Your task to perform on an android device: Open Wikipedia Image 0: 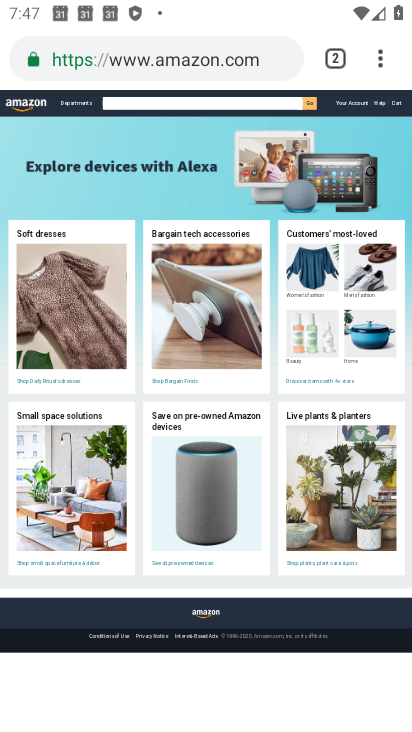
Step 0: press home button
Your task to perform on an android device: Open Wikipedia Image 1: 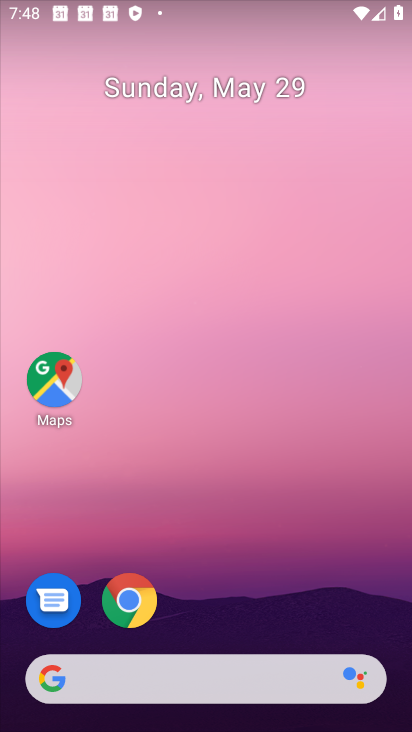
Step 1: drag from (314, 586) to (303, 75)
Your task to perform on an android device: Open Wikipedia Image 2: 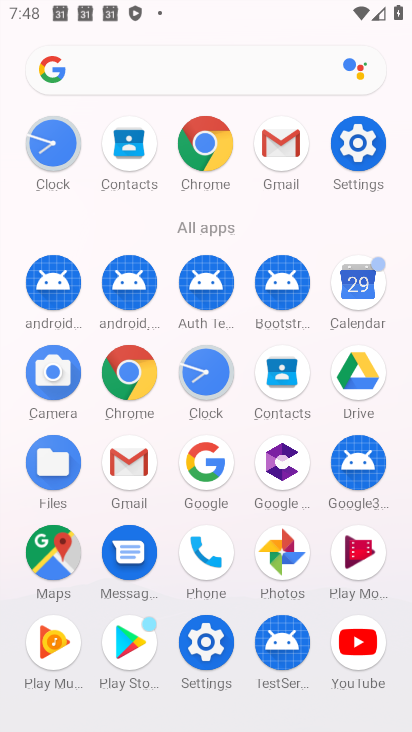
Step 2: click (148, 384)
Your task to perform on an android device: Open Wikipedia Image 3: 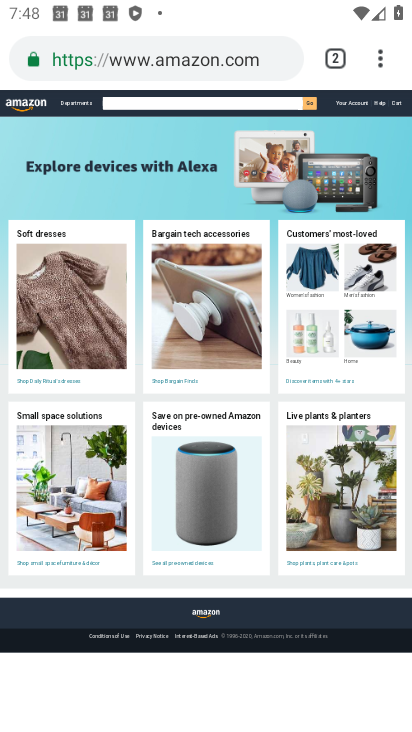
Step 3: click (342, 56)
Your task to perform on an android device: Open Wikipedia Image 4: 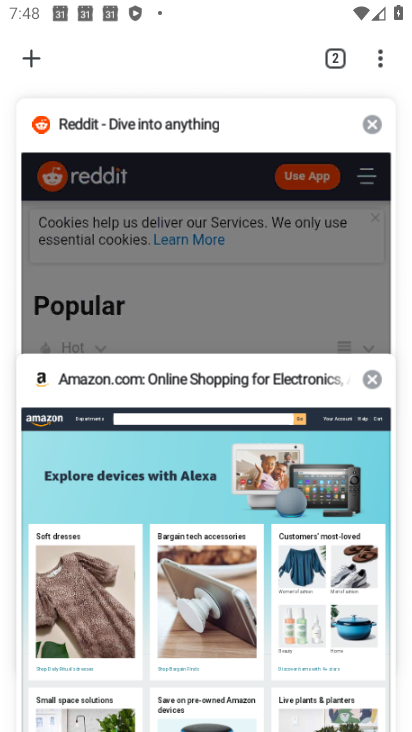
Step 4: click (13, 59)
Your task to perform on an android device: Open Wikipedia Image 5: 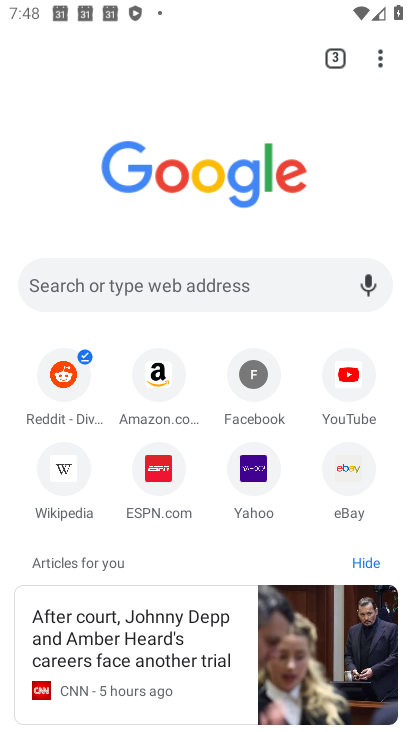
Step 5: click (40, 485)
Your task to perform on an android device: Open Wikipedia Image 6: 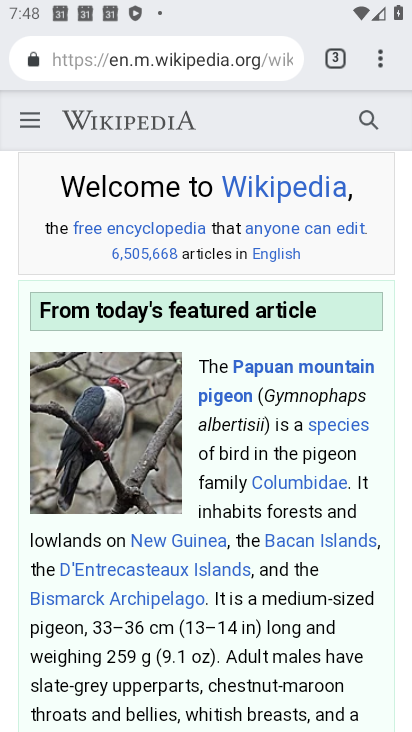
Step 6: task complete